Your task to perform on an android device: Open calendar and show me the fourth week of next month Image 0: 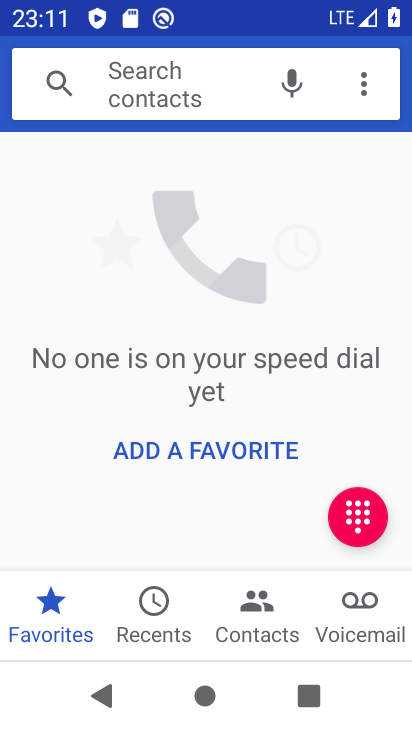
Step 0: press home button
Your task to perform on an android device: Open calendar and show me the fourth week of next month Image 1: 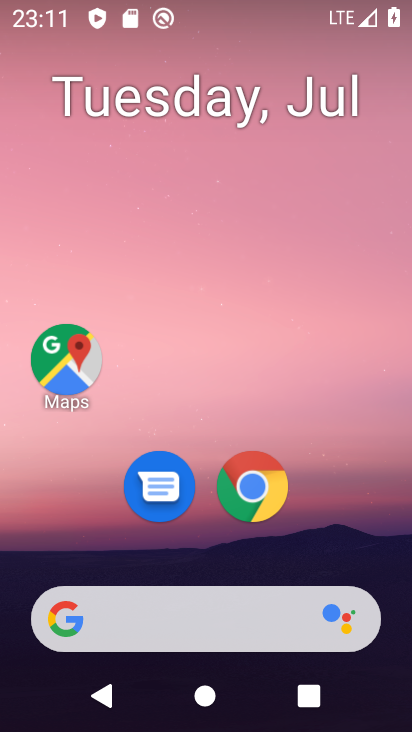
Step 1: drag from (334, 481) to (336, 148)
Your task to perform on an android device: Open calendar and show me the fourth week of next month Image 2: 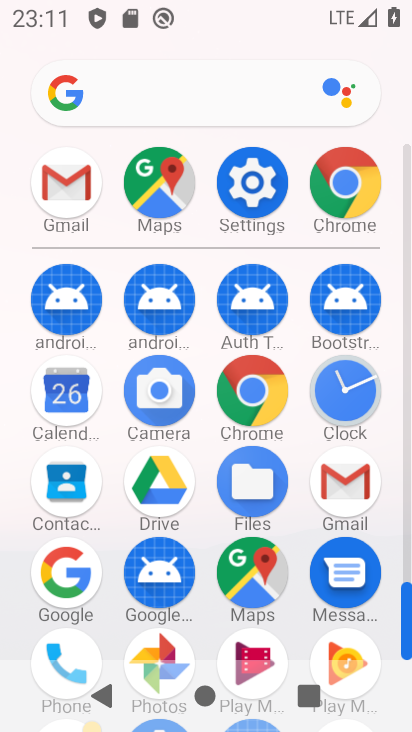
Step 2: click (68, 399)
Your task to perform on an android device: Open calendar and show me the fourth week of next month Image 3: 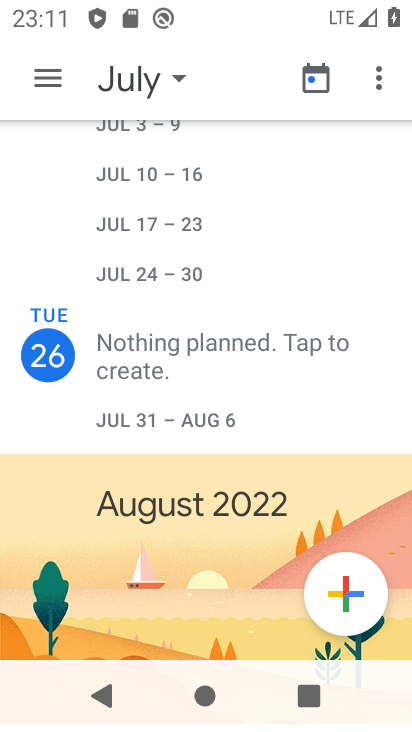
Step 3: click (181, 80)
Your task to perform on an android device: Open calendar and show me the fourth week of next month Image 4: 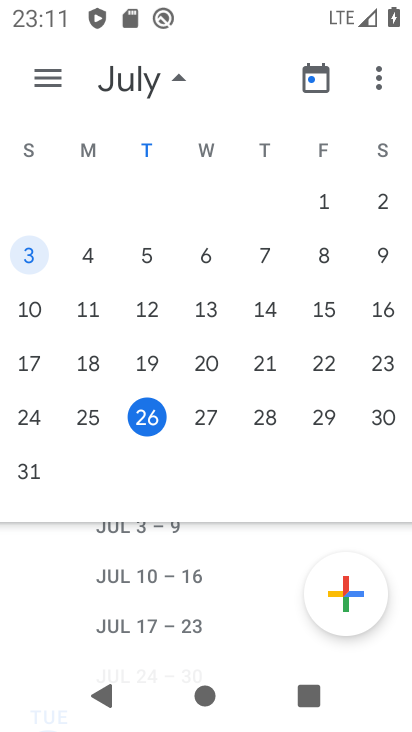
Step 4: drag from (377, 221) to (107, 209)
Your task to perform on an android device: Open calendar and show me the fourth week of next month Image 5: 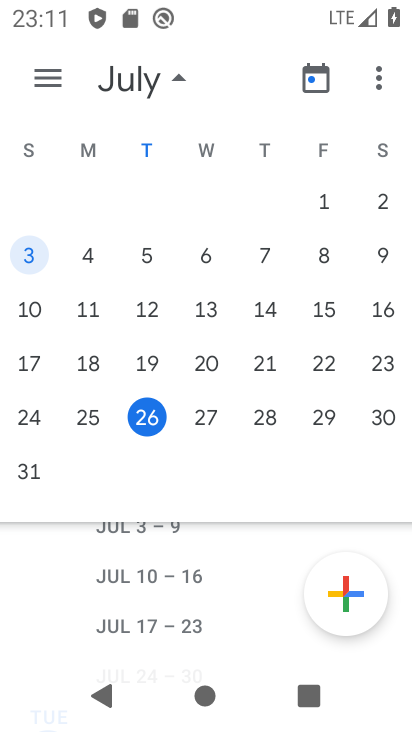
Step 5: drag from (400, 216) to (60, 213)
Your task to perform on an android device: Open calendar and show me the fourth week of next month Image 6: 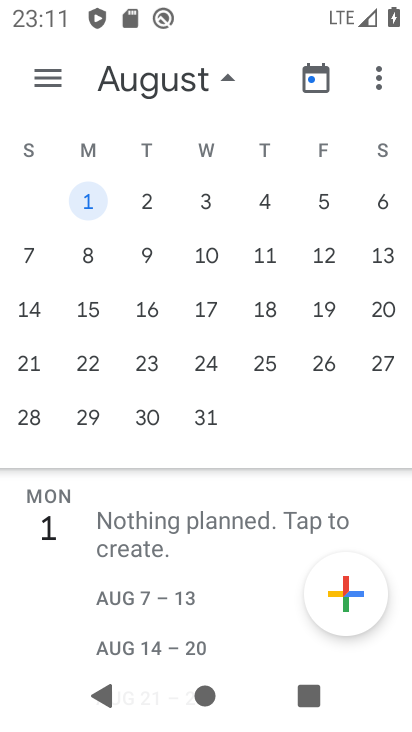
Step 6: click (94, 361)
Your task to perform on an android device: Open calendar and show me the fourth week of next month Image 7: 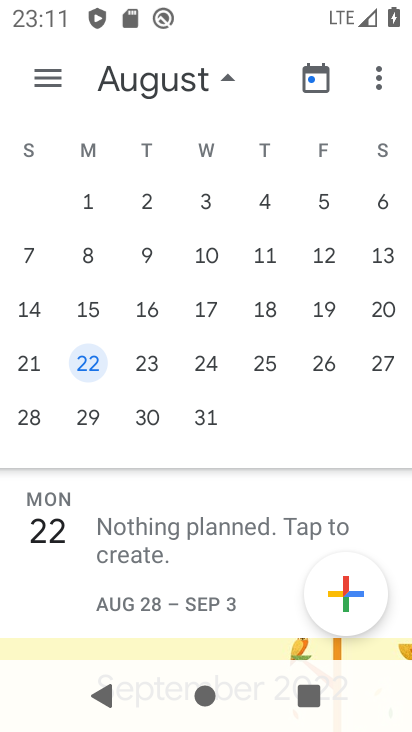
Step 7: task complete